Your task to perform on an android device: check storage Image 0: 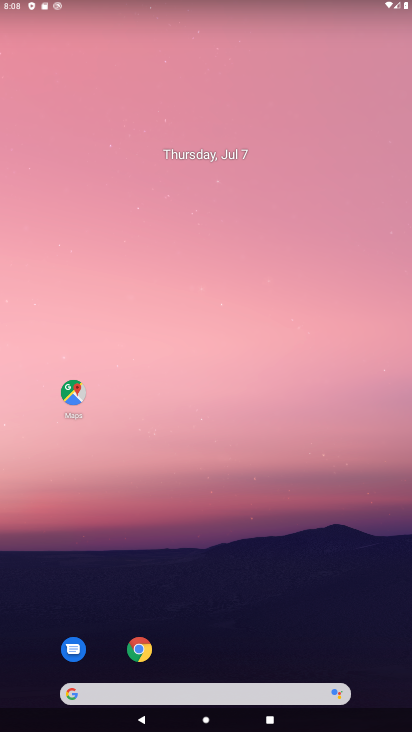
Step 0: drag from (265, 586) to (223, 142)
Your task to perform on an android device: check storage Image 1: 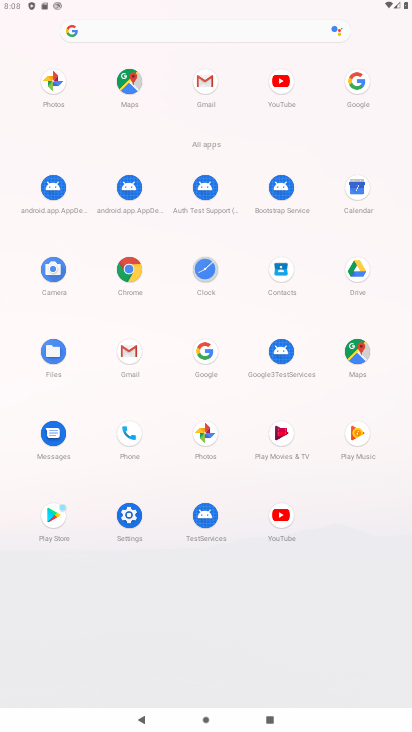
Step 1: click (133, 510)
Your task to perform on an android device: check storage Image 2: 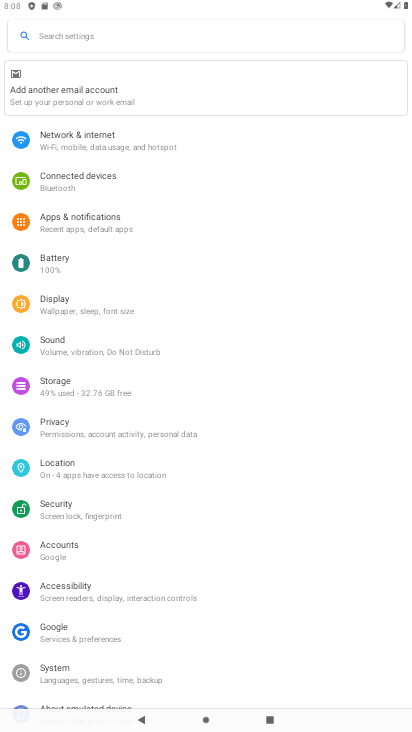
Step 2: click (41, 383)
Your task to perform on an android device: check storage Image 3: 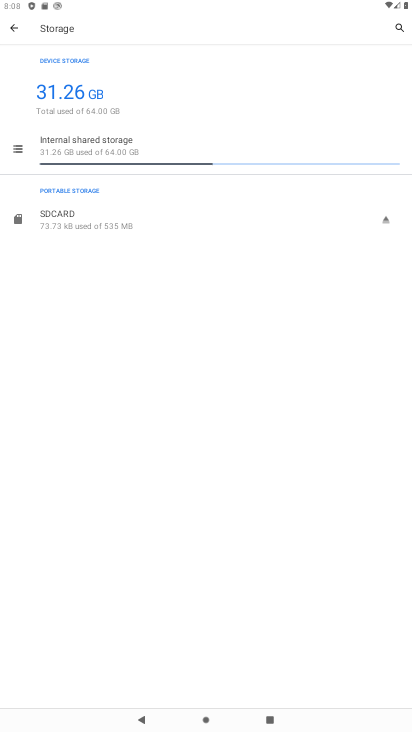
Step 3: task complete